Your task to perform on an android device: Show me recent news Image 0: 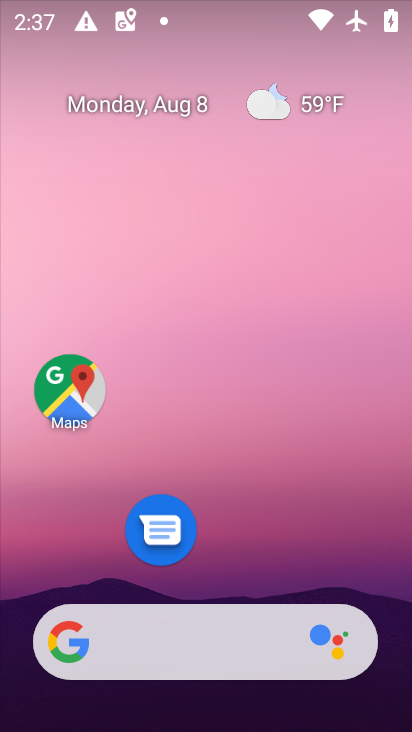
Step 0: drag from (1, 229) to (357, 222)
Your task to perform on an android device: Show me recent news Image 1: 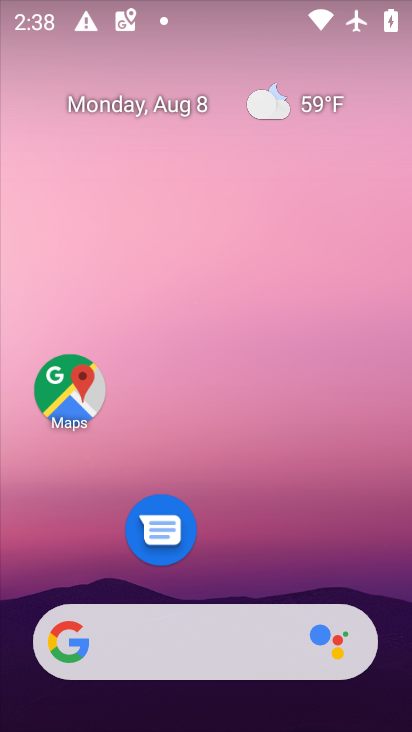
Step 1: task complete